Your task to perform on an android device: allow cookies in the chrome app Image 0: 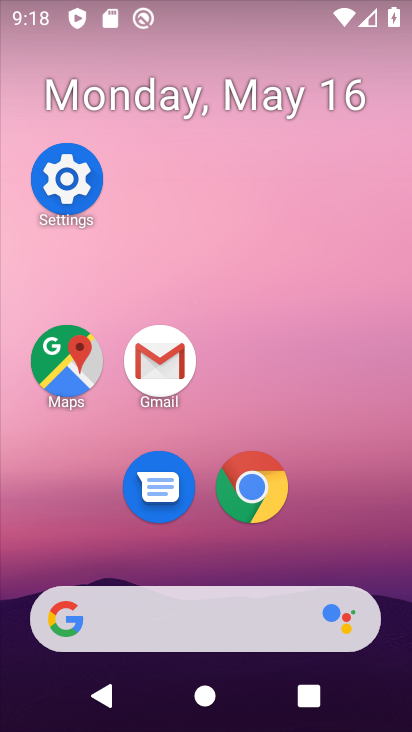
Step 0: click (271, 480)
Your task to perform on an android device: allow cookies in the chrome app Image 1: 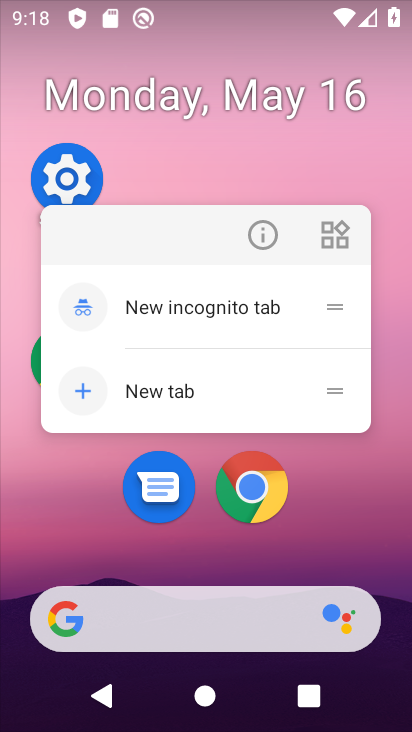
Step 1: click (239, 511)
Your task to perform on an android device: allow cookies in the chrome app Image 2: 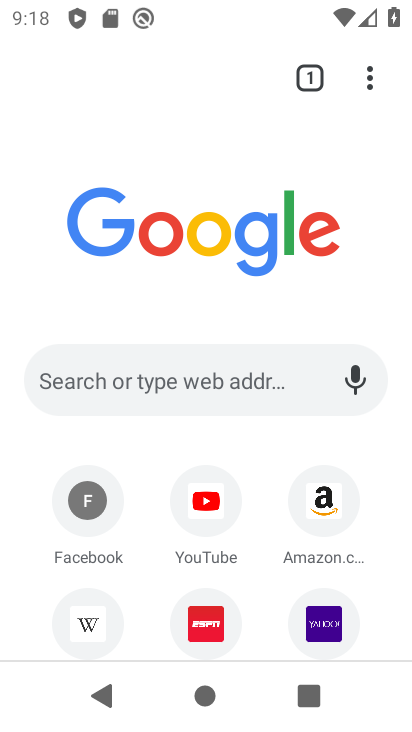
Step 2: click (385, 73)
Your task to perform on an android device: allow cookies in the chrome app Image 3: 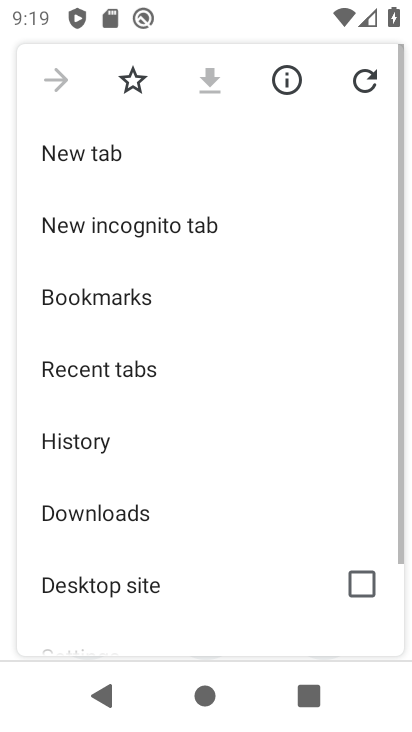
Step 3: drag from (189, 383) to (217, 140)
Your task to perform on an android device: allow cookies in the chrome app Image 4: 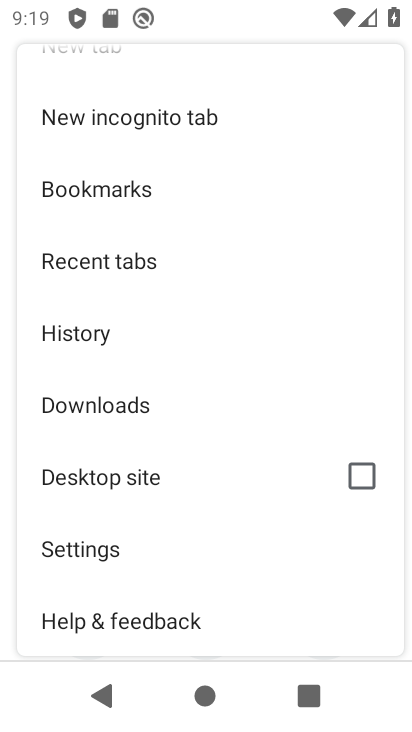
Step 4: click (179, 558)
Your task to perform on an android device: allow cookies in the chrome app Image 5: 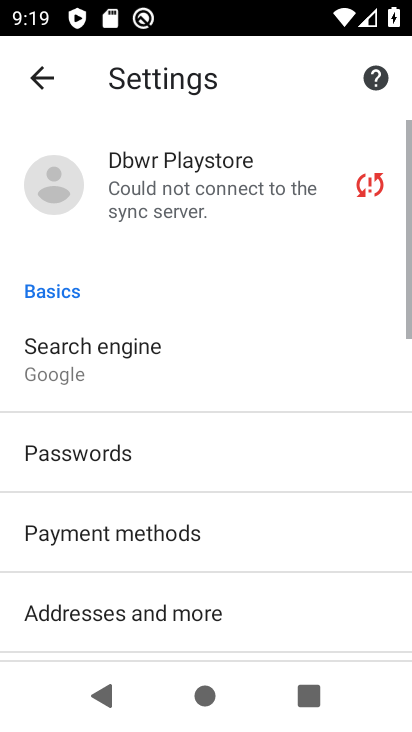
Step 5: drag from (177, 480) to (217, 131)
Your task to perform on an android device: allow cookies in the chrome app Image 6: 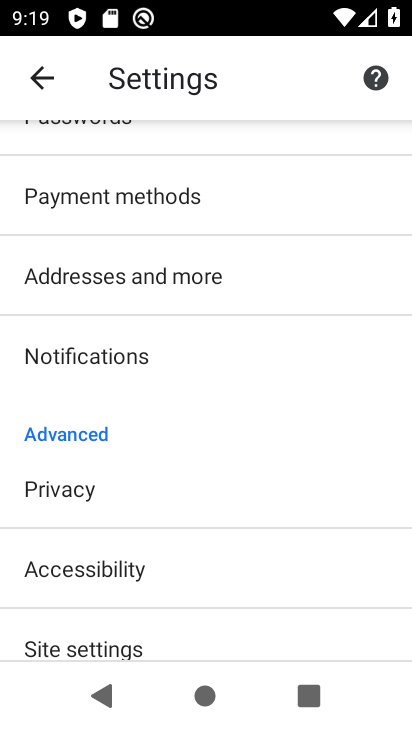
Step 6: click (133, 622)
Your task to perform on an android device: allow cookies in the chrome app Image 7: 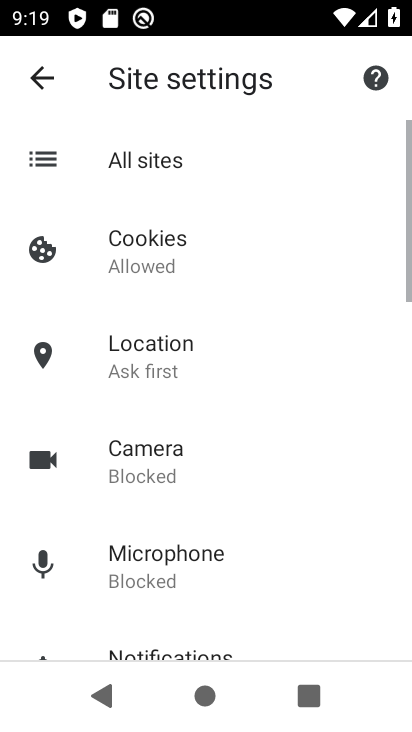
Step 7: click (312, 223)
Your task to perform on an android device: allow cookies in the chrome app Image 8: 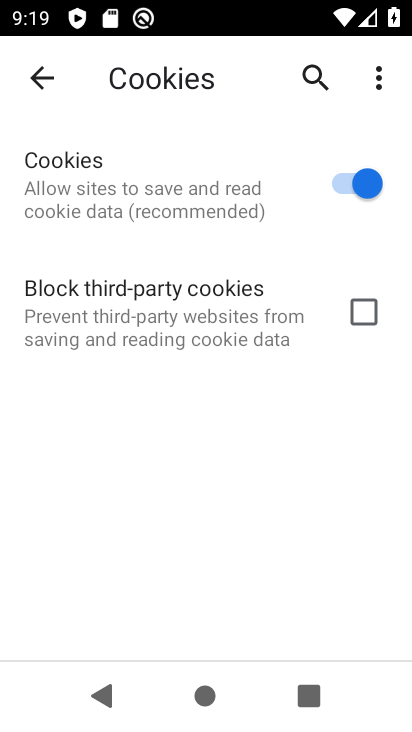
Step 8: task complete